Your task to perform on an android device: What's the weather today? Image 0: 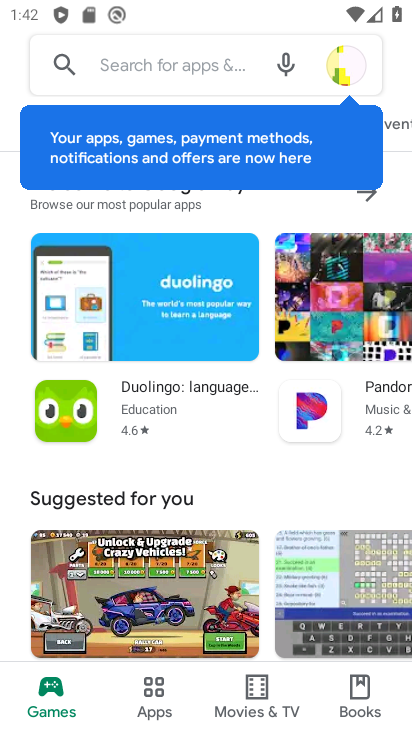
Step 0: press home button
Your task to perform on an android device: What's the weather today? Image 1: 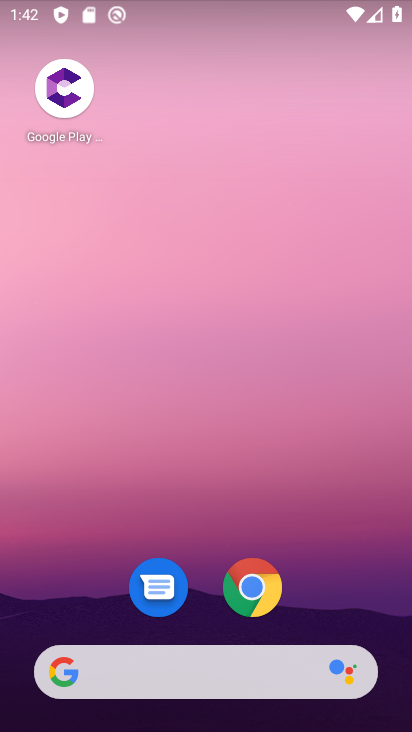
Step 1: click (178, 670)
Your task to perform on an android device: What's the weather today? Image 2: 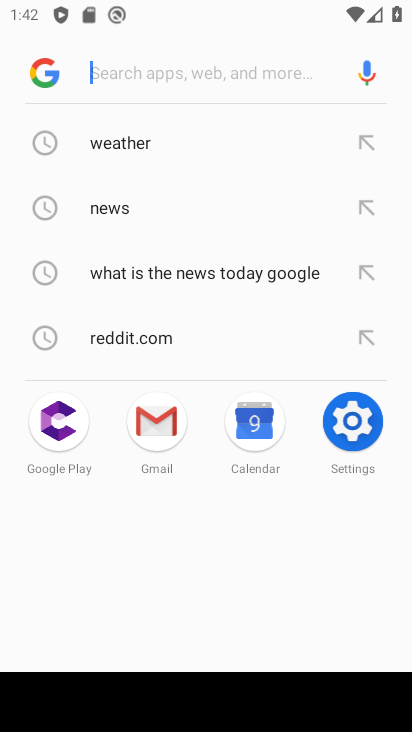
Step 2: click (158, 129)
Your task to perform on an android device: What's the weather today? Image 3: 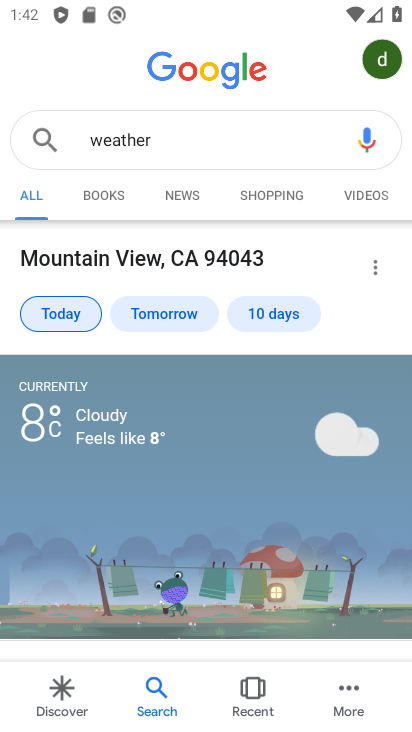
Step 3: task complete